Your task to perform on an android device: Open calendar and show me the first week of next month Image 0: 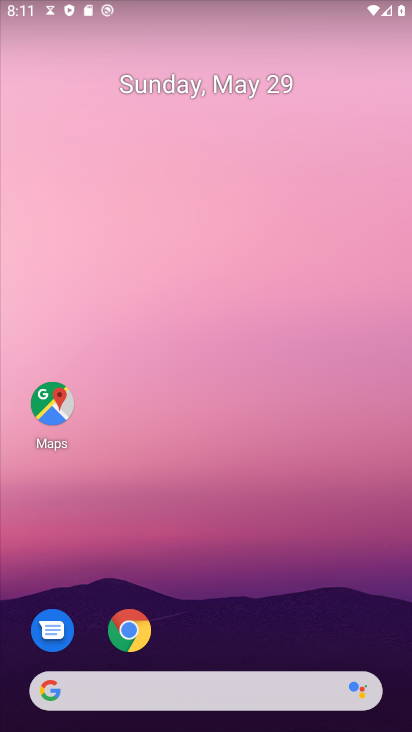
Step 0: click (233, 85)
Your task to perform on an android device: Open calendar and show me the first week of next month Image 1: 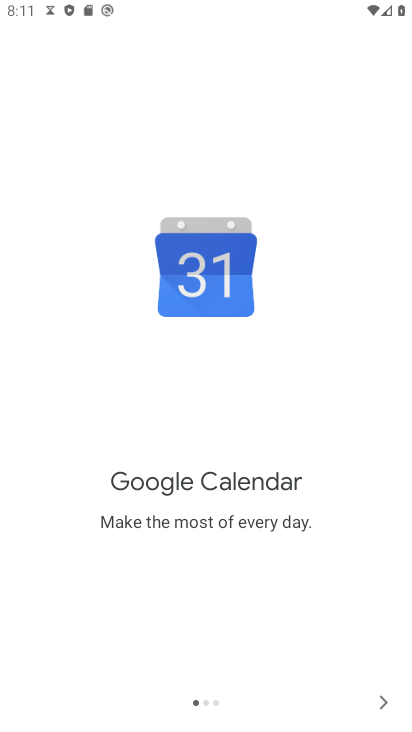
Step 1: click (392, 698)
Your task to perform on an android device: Open calendar and show me the first week of next month Image 2: 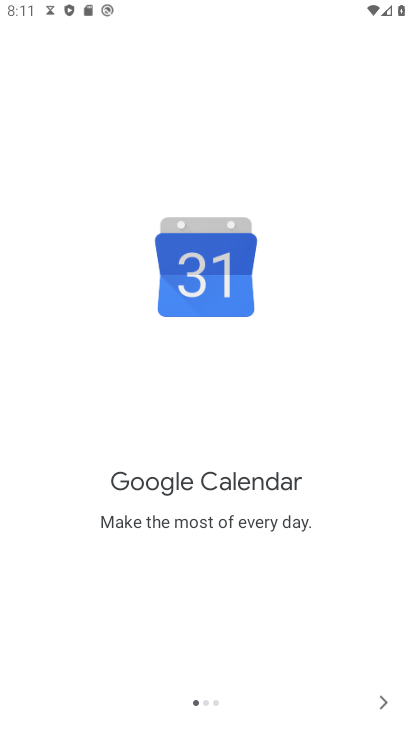
Step 2: click (392, 698)
Your task to perform on an android device: Open calendar and show me the first week of next month Image 3: 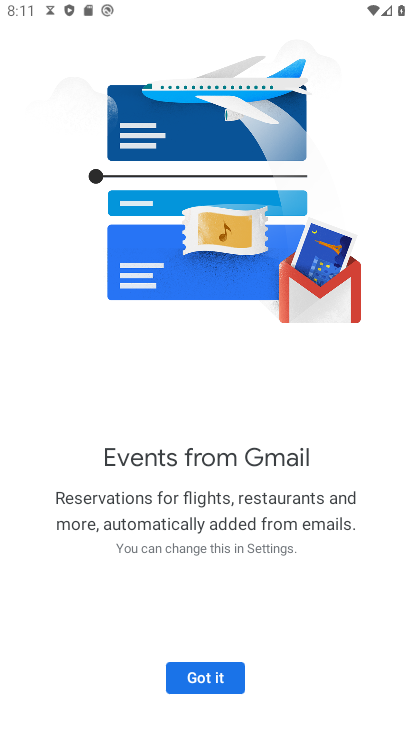
Step 3: click (197, 668)
Your task to perform on an android device: Open calendar and show me the first week of next month Image 4: 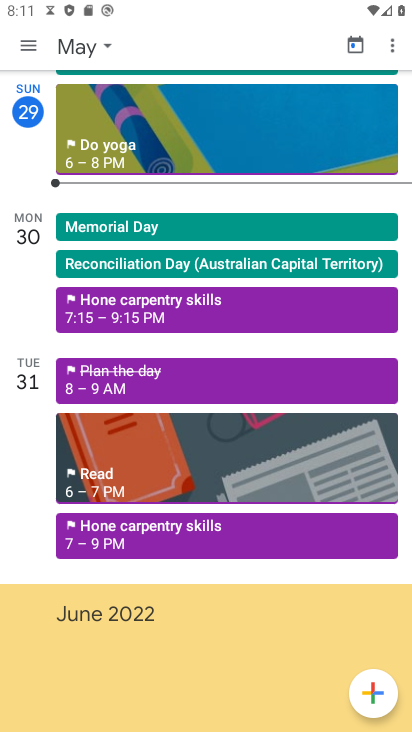
Step 4: click (33, 49)
Your task to perform on an android device: Open calendar and show me the first week of next month Image 5: 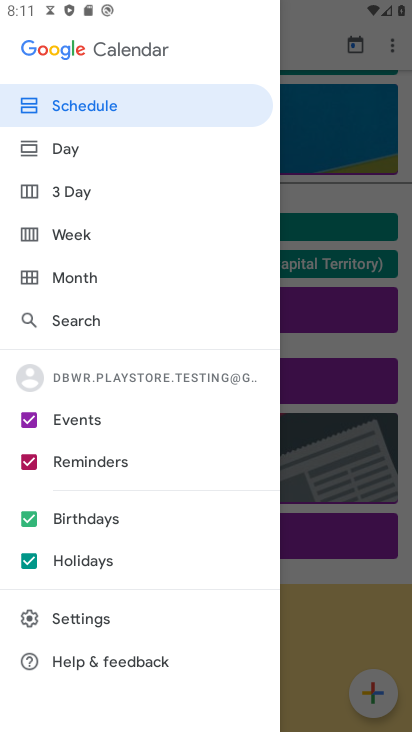
Step 5: click (64, 236)
Your task to perform on an android device: Open calendar and show me the first week of next month Image 6: 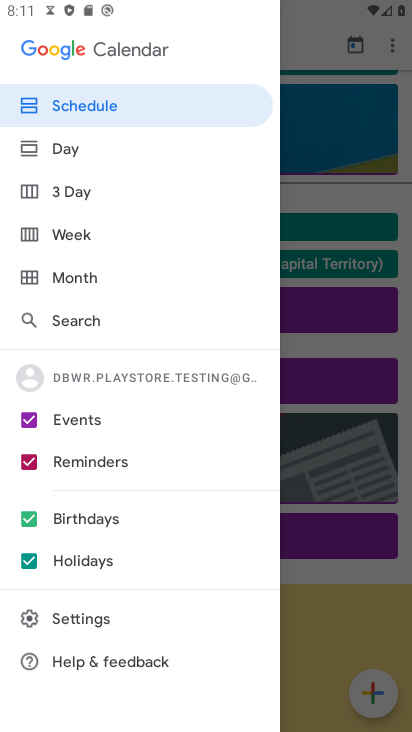
Step 6: click (69, 235)
Your task to perform on an android device: Open calendar and show me the first week of next month Image 7: 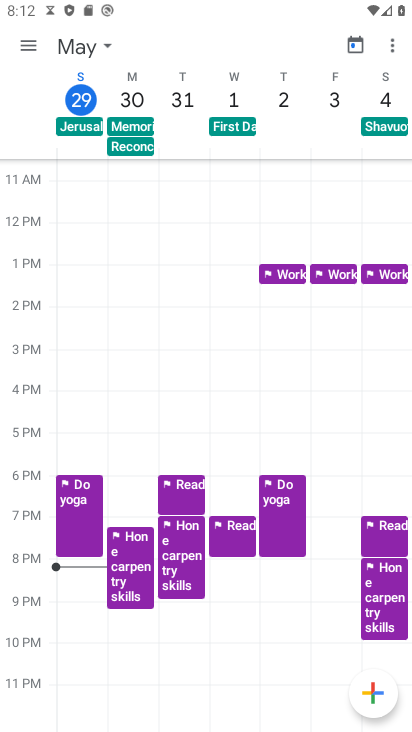
Step 7: click (103, 40)
Your task to perform on an android device: Open calendar and show me the first week of next month Image 8: 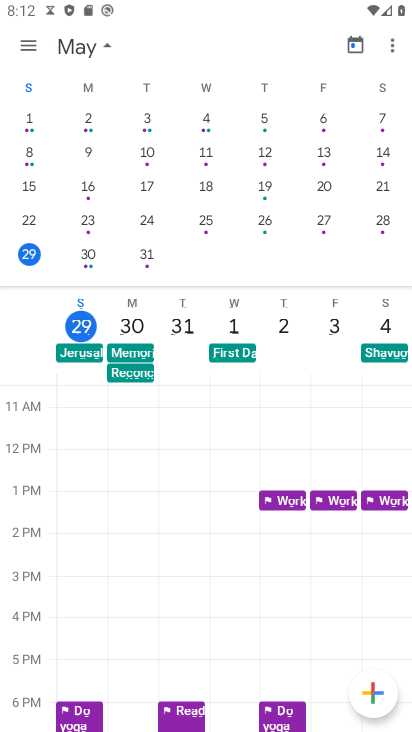
Step 8: drag from (287, 247) to (22, 173)
Your task to perform on an android device: Open calendar and show me the first week of next month Image 9: 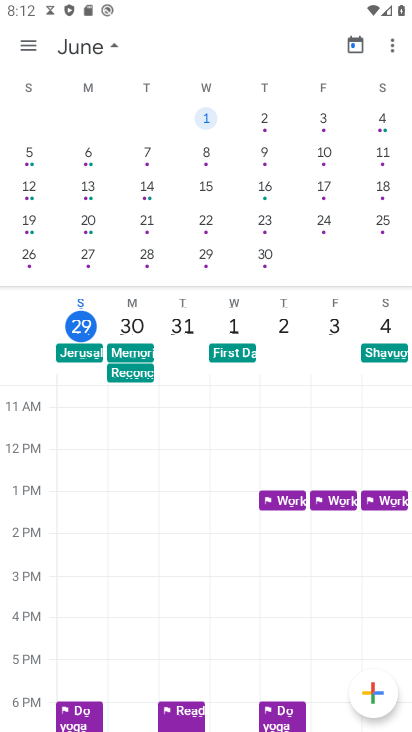
Step 9: click (205, 117)
Your task to perform on an android device: Open calendar and show me the first week of next month Image 10: 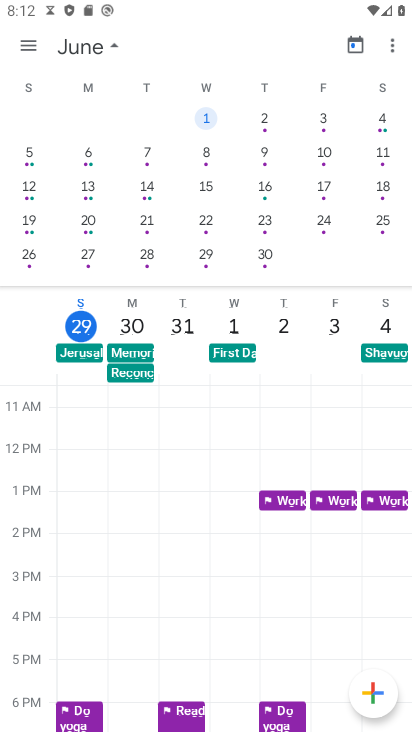
Step 10: task complete